Your task to perform on an android device: change text size in settings app Image 0: 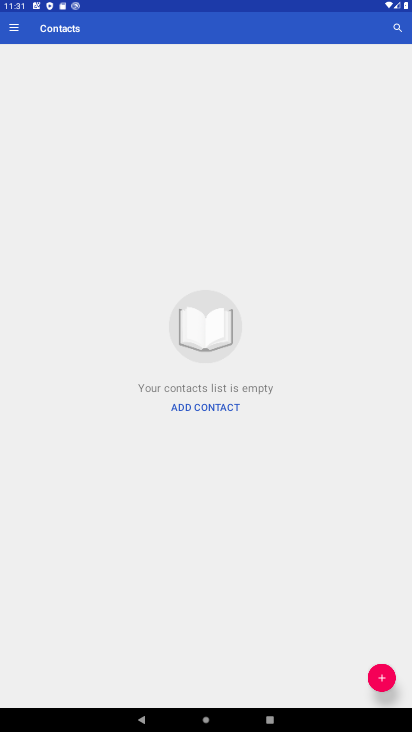
Step 0: press home button
Your task to perform on an android device: change text size in settings app Image 1: 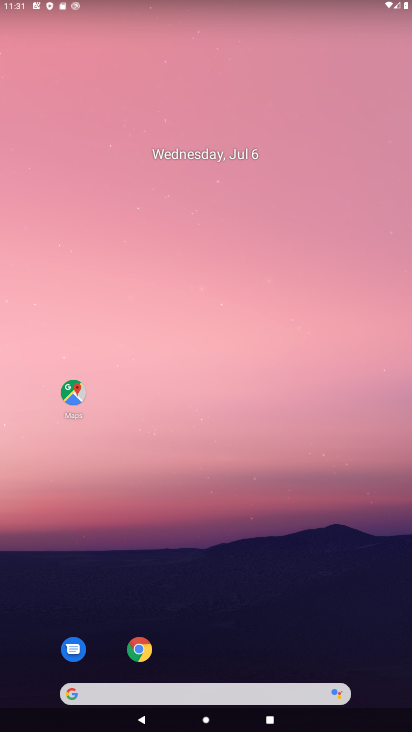
Step 1: drag from (36, 633) to (9, 483)
Your task to perform on an android device: change text size in settings app Image 2: 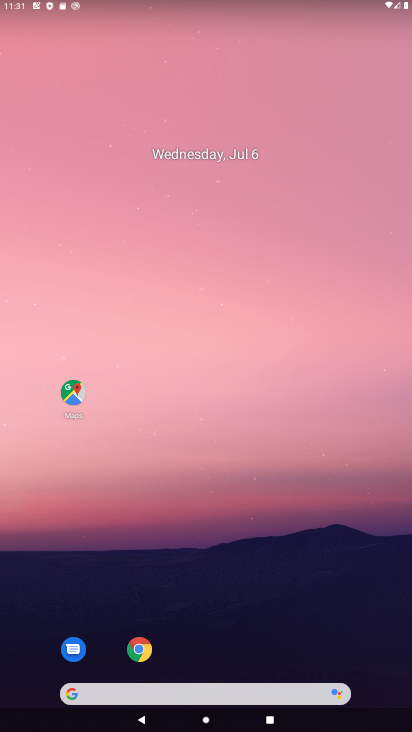
Step 2: drag from (31, 673) to (234, 113)
Your task to perform on an android device: change text size in settings app Image 3: 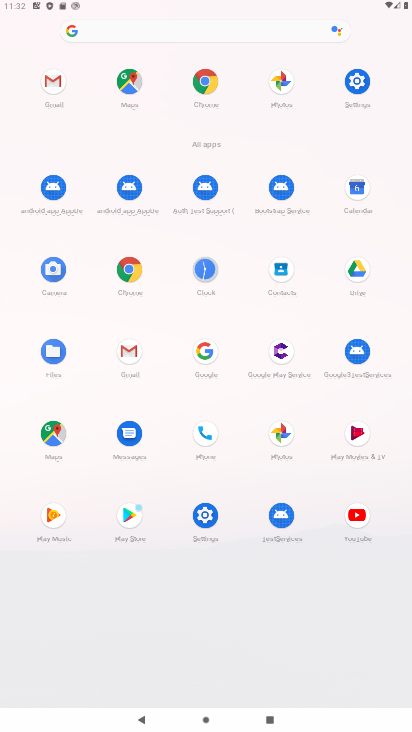
Step 3: click (349, 86)
Your task to perform on an android device: change text size in settings app Image 4: 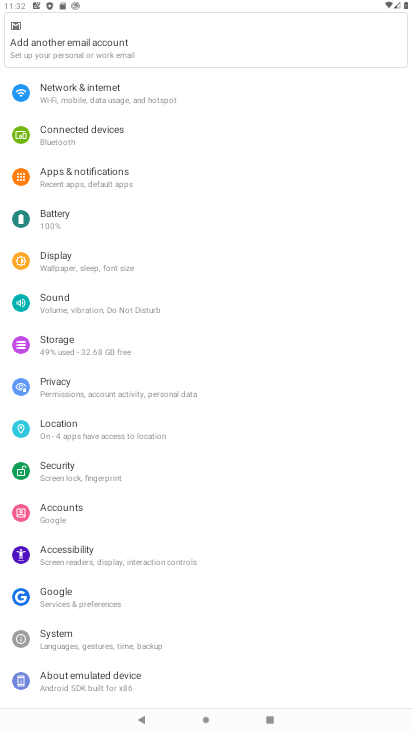
Step 4: click (98, 545)
Your task to perform on an android device: change text size in settings app Image 5: 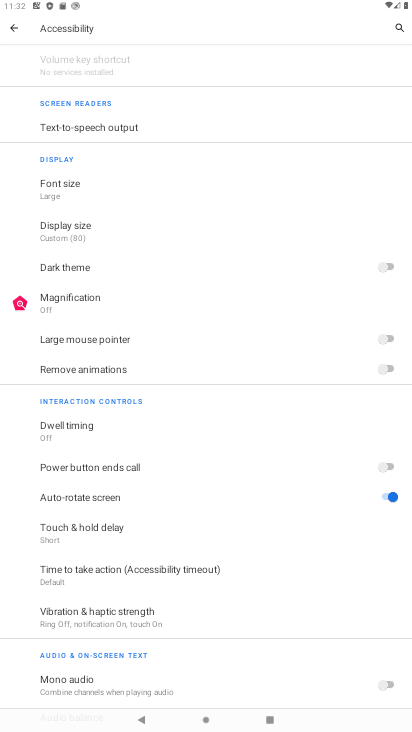
Step 5: drag from (253, 662) to (405, 74)
Your task to perform on an android device: change text size in settings app Image 6: 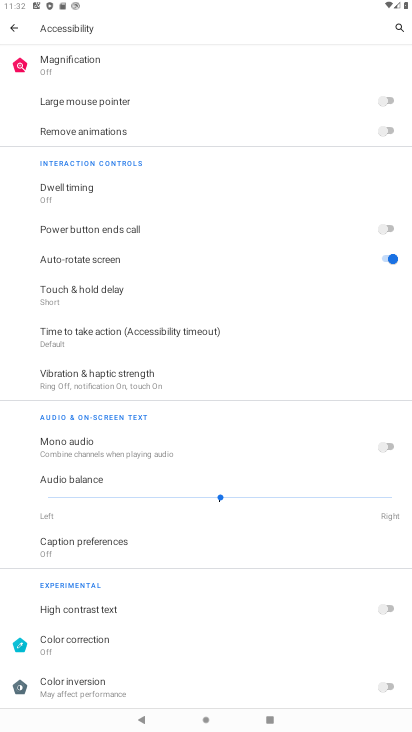
Step 6: drag from (216, 652) to (405, 153)
Your task to perform on an android device: change text size in settings app Image 7: 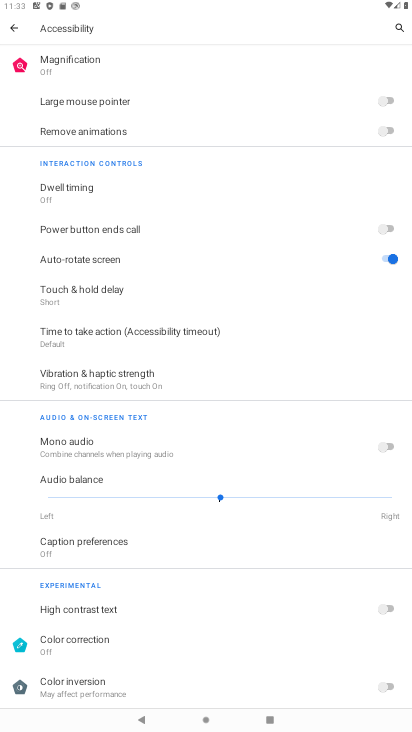
Step 7: drag from (142, 673) to (313, 70)
Your task to perform on an android device: change text size in settings app Image 8: 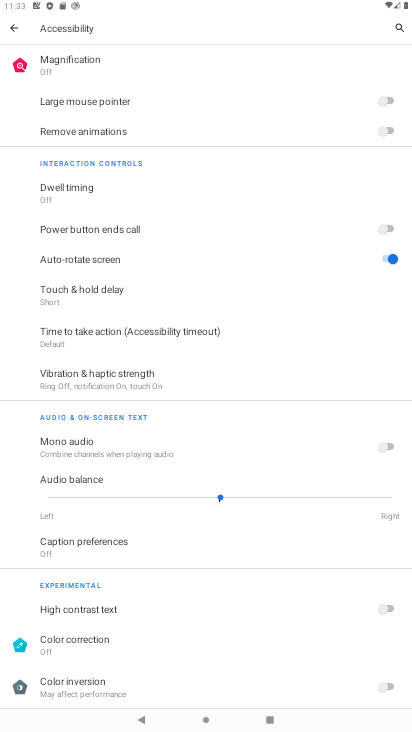
Step 8: drag from (242, 118) to (211, 717)
Your task to perform on an android device: change text size in settings app Image 9: 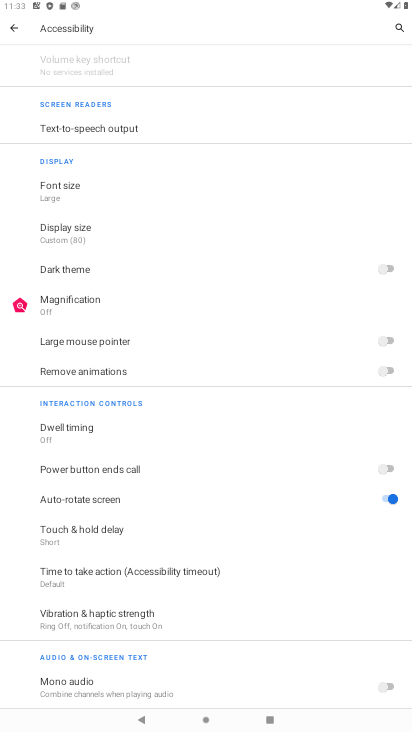
Step 9: click (79, 190)
Your task to perform on an android device: change text size in settings app Image 10: 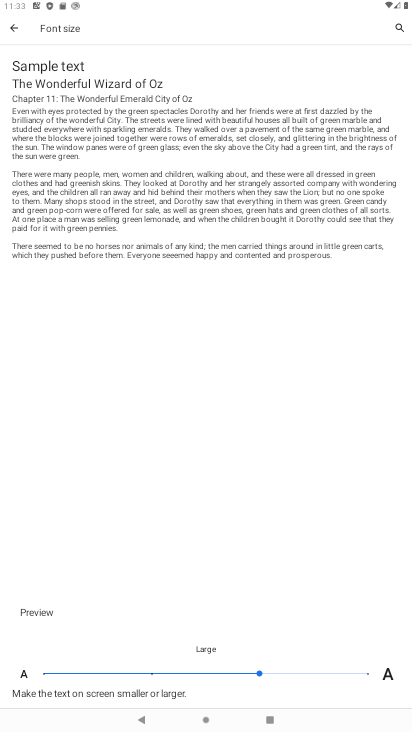
Step 10: task complete